Your task to perform on an android device: Open network settings Image 0: 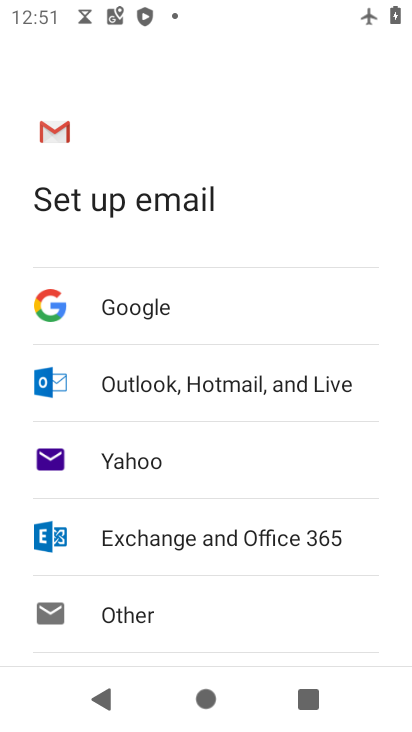
Step 0: press home button
Your task to perform on an android device: Open network settings Image 1: 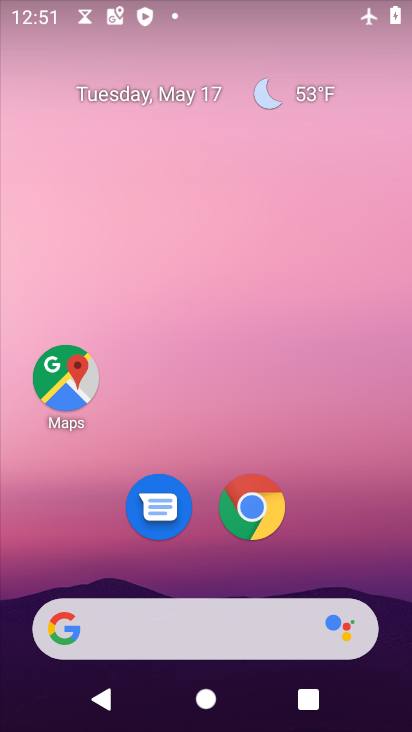
Step 1: drag from (214, 560) to (218, 0)
Your task to perform on an android device: Open network settings Image 2: 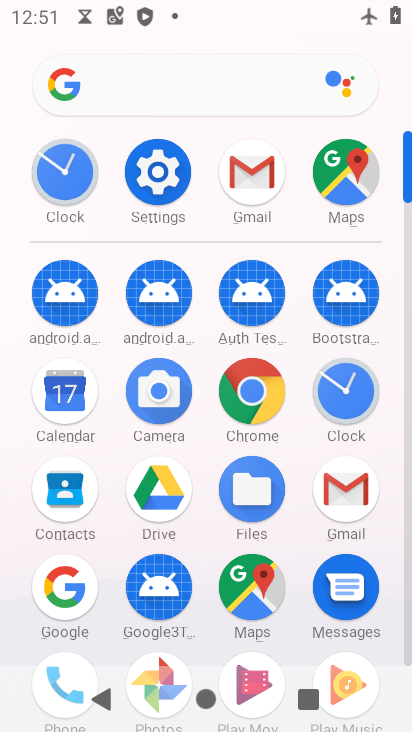
Step 2: click (149, 167)
Your task to perform on an android device: Open network settings Image 3: 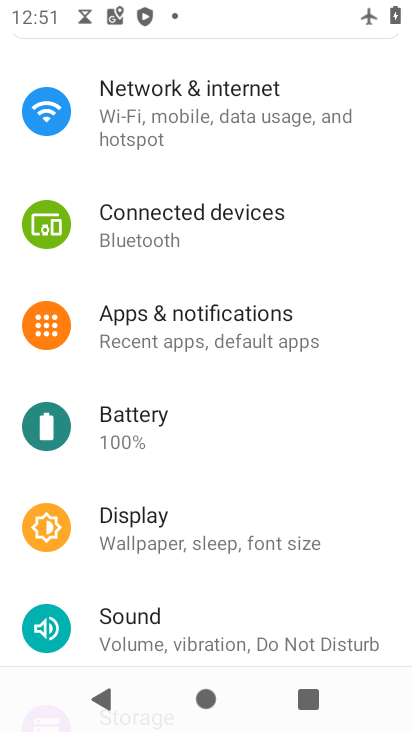
Step 3: click (255, 129)
Your task to perform on an android device: Open network settings Image 4: 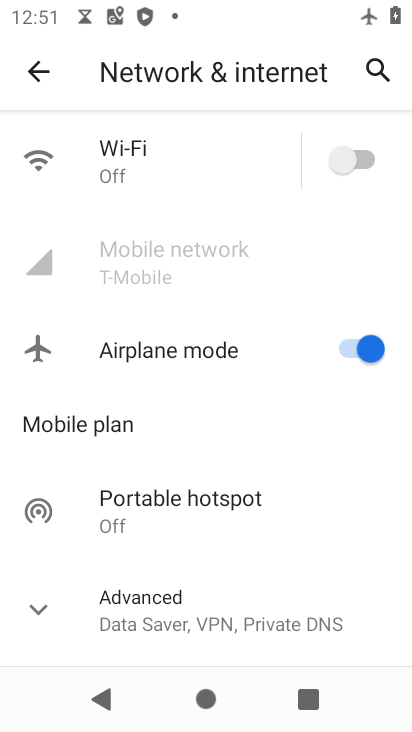
Step 4: task complete